Your task to perform on an android device: See recent photos Image 0: 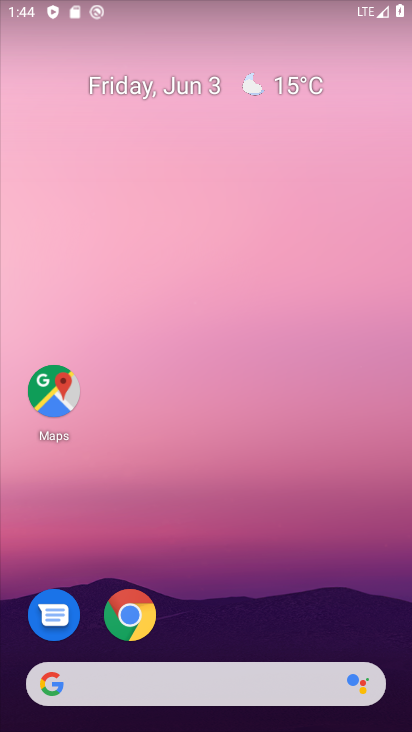
Step 0: drag from (232, 95) to (245, 48)
Your task to perform on an android device: See recent photos Image 1: 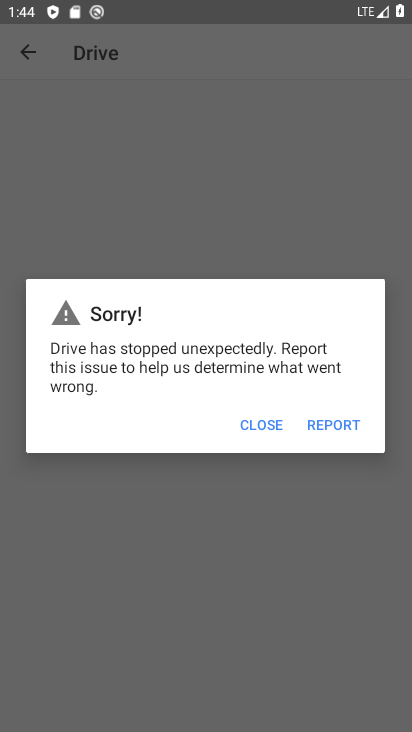
Step 1: press home button
Your task to perform on an android device: See recent photos Image 2: 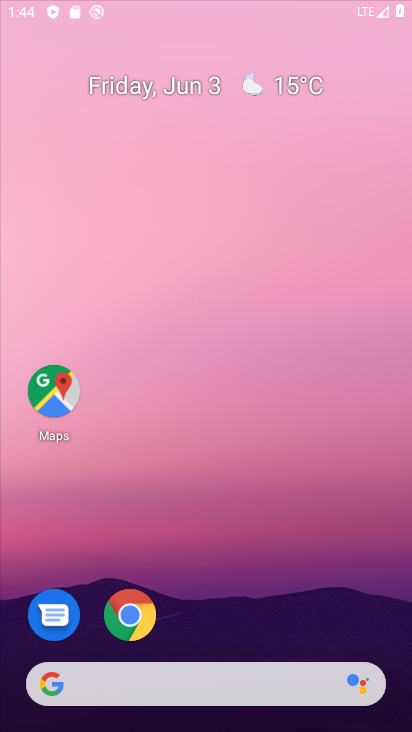
Step 2: drag from (203, 543) to (206, 281)
Your task to perform on an android device: See recent photos Image 3: 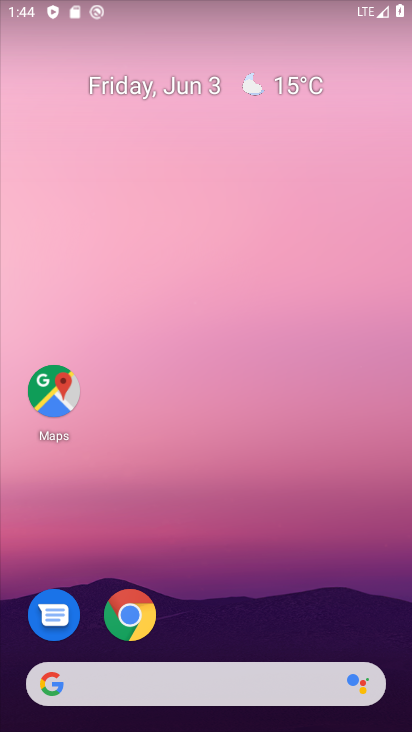
Step 3: drag from (202, 653) to (212, 108)
Your task to perform on an android device: See recent photos Image 4: 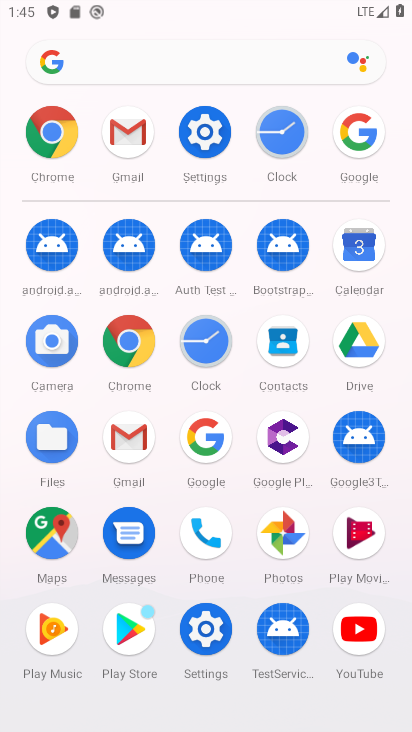
Step 4: click (268, 537)
Your task to perform on an android device: See recent photos Image 5: 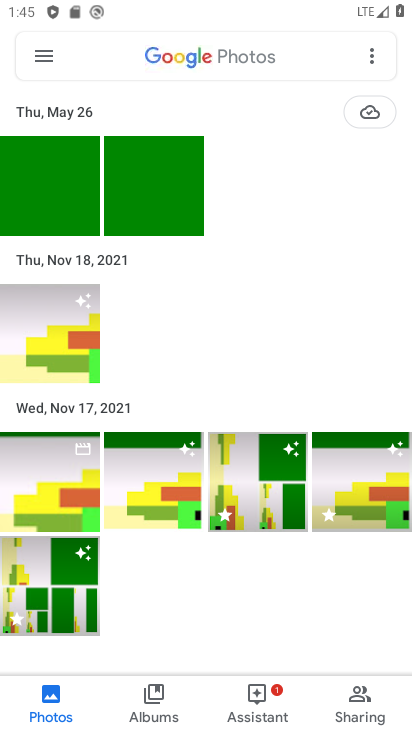
Step 5: click (71, 486)
Your task to perform on an android device: See recent photos Image 6: 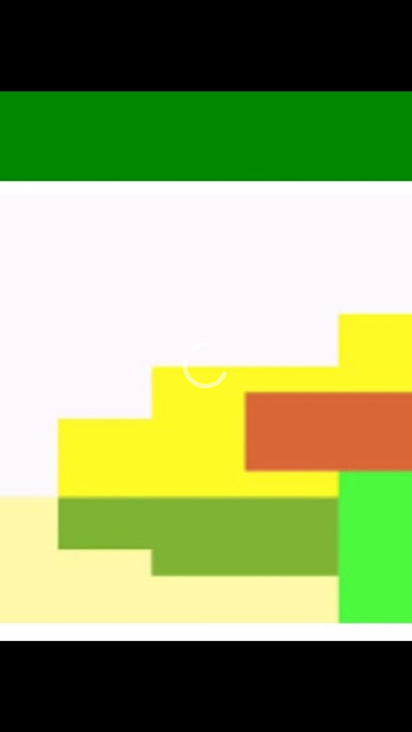
Step 6: task complete